Your task to perform on an android device: Open my contact list Image 0: 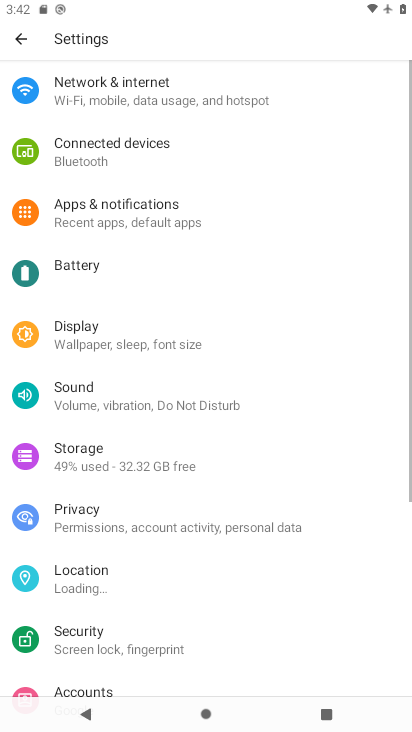
Step 0: drag from (243, 537) to (213, 163)
Your task to perform on an android device: Open my contact list Image 1: 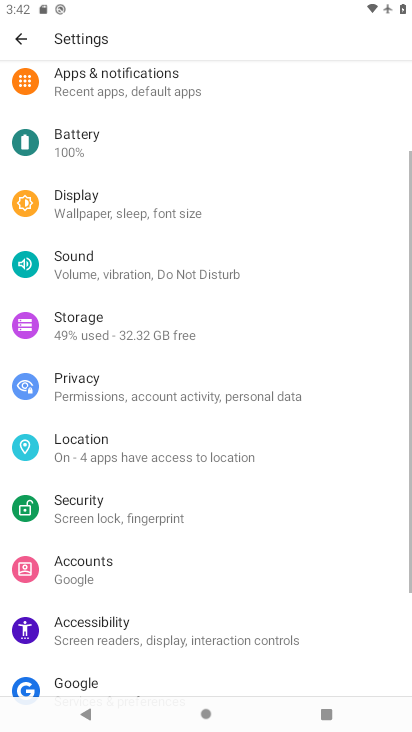
Step 1: press home button
Your task to perform on an android device: Open my contact list Image 2: 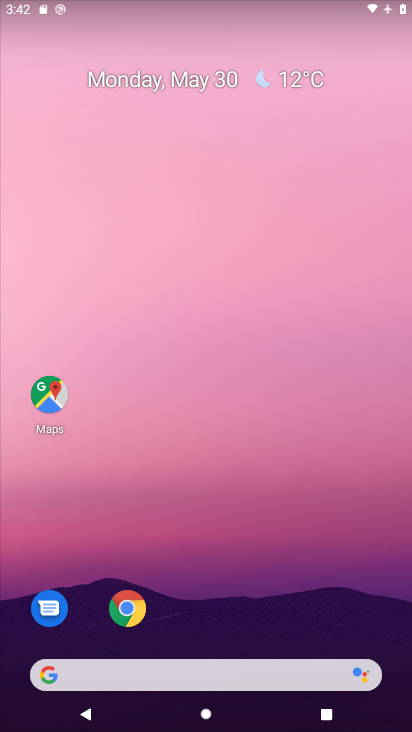
Step 2: drag from (227, 499) to (177, 20)
Your task to perform on an android device: Open my contact list Image 3: 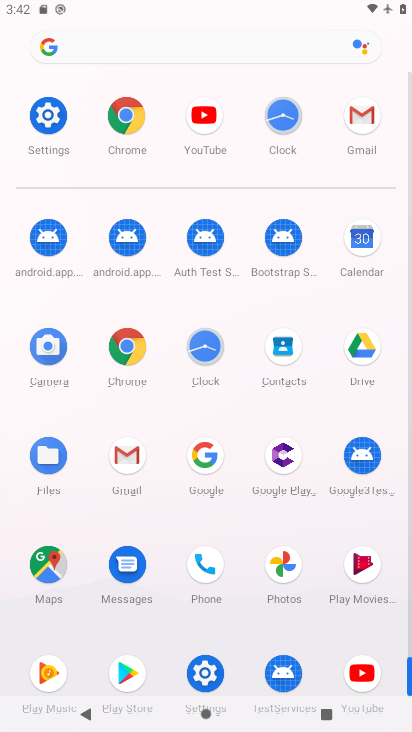
Step 3: click (293, 349)
Your task to perform on an android device: Open my contact list Image 4: 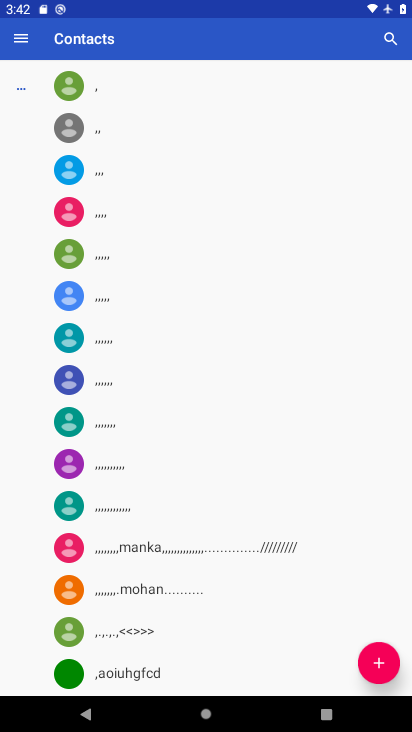
Step 4: task complete